Your task to perform on an android device: Open battery settings Image 0: 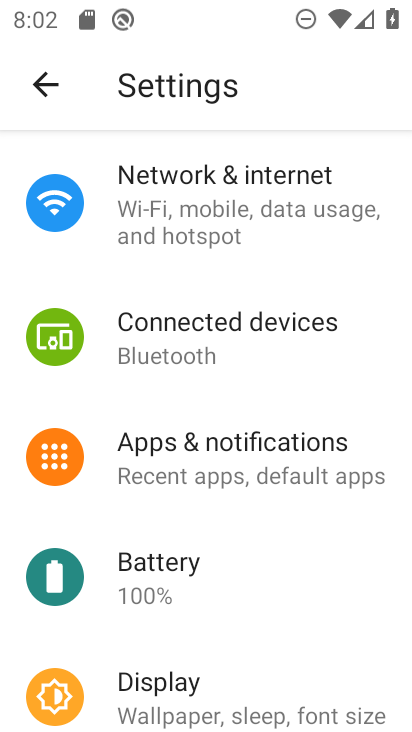
Step 0: click (183, 566)
Your task to perform on an android device: Open battery settings Image 1: 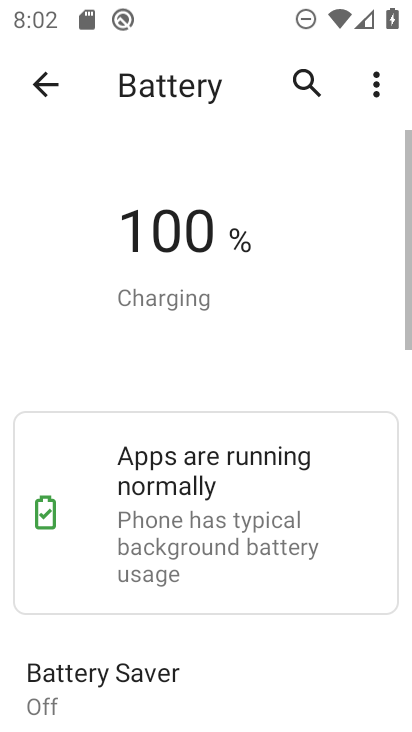
Step 1: task complete